Your task to perform on an android device: open chrome privacy settings Image 0: 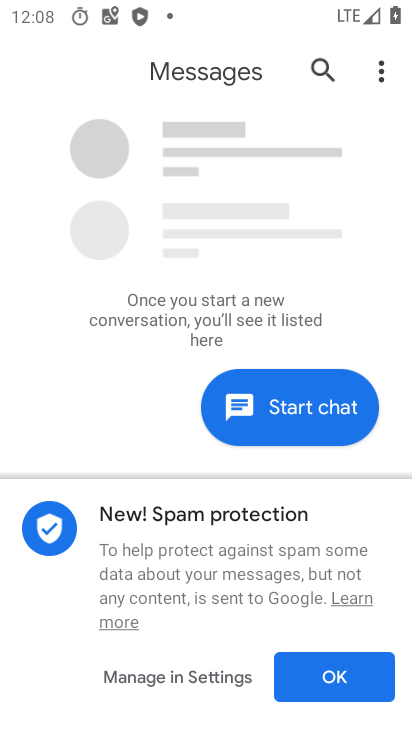
Step 0: press back button
Your task to perform on an android device: open chrome privacy settings Image 1: 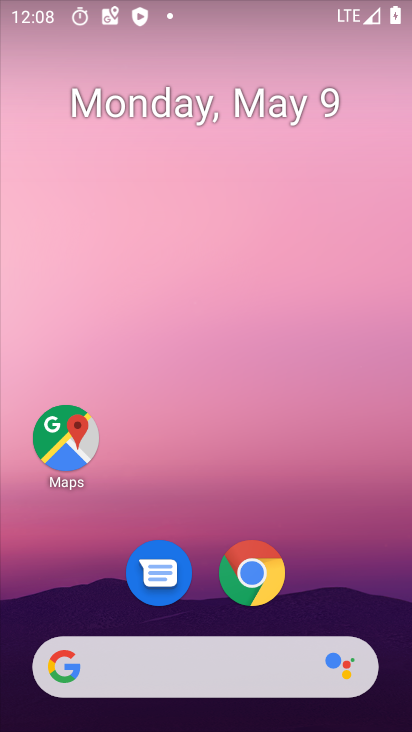
Step 1: drag from (329, 576) to (251, 41)
Your task to perform on an android device: open chrome privacy settings Image 2: 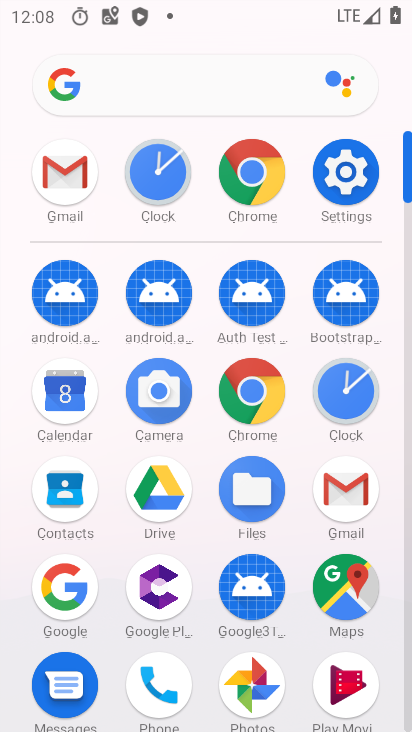
Step 2: drag from (12, 584) to (13, 230)
Your task to perform on an android device: open chrome privacy settings Image 3: 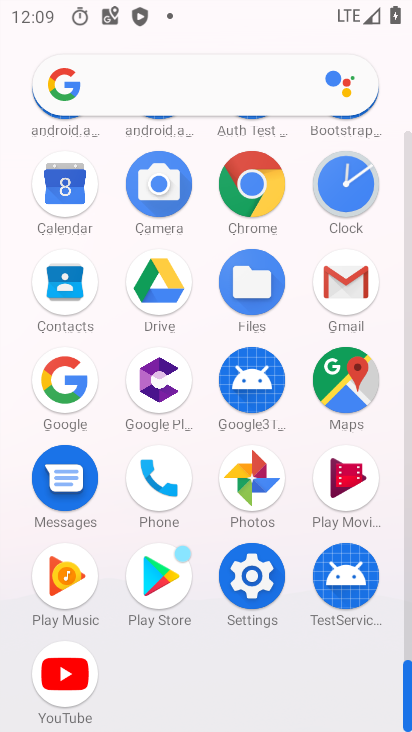
Step 3: click (249, 181)
Your task to perform on an android device: open chrome privacy settings Image 4: 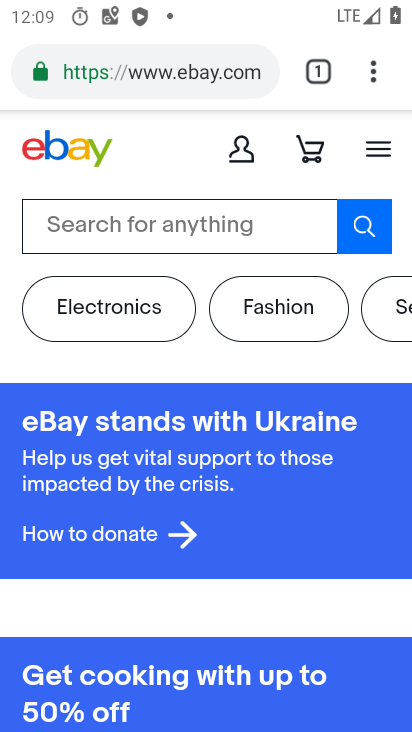
Step 4: drag from (372, 83) to (161, 567)
Your task to perform on an android device: open chrome privacy settings Image 5: 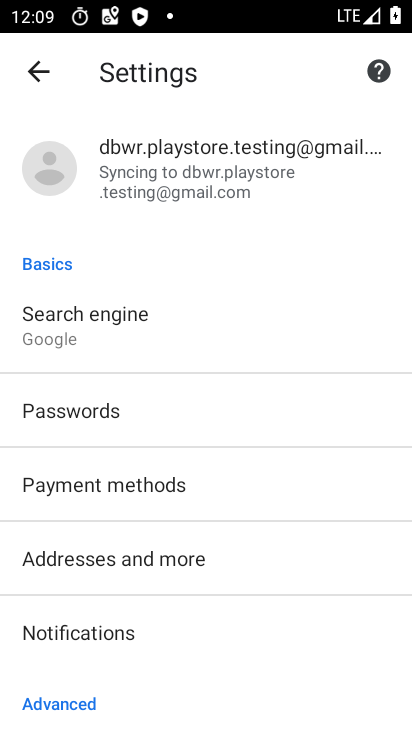
Step 5: drag from (215, 645) to (295, 206)
Your task to perform on an android device: open chrome privacy settings Image 6: 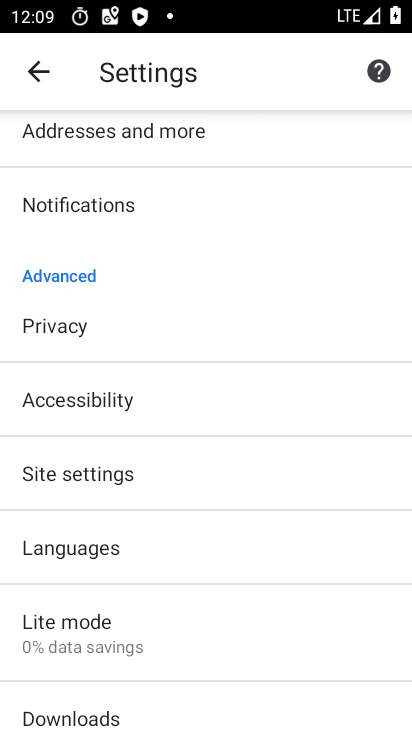
Step 6: click (92, 323)
Your task to perform on an android device: open chrome privacy settings Image 7: 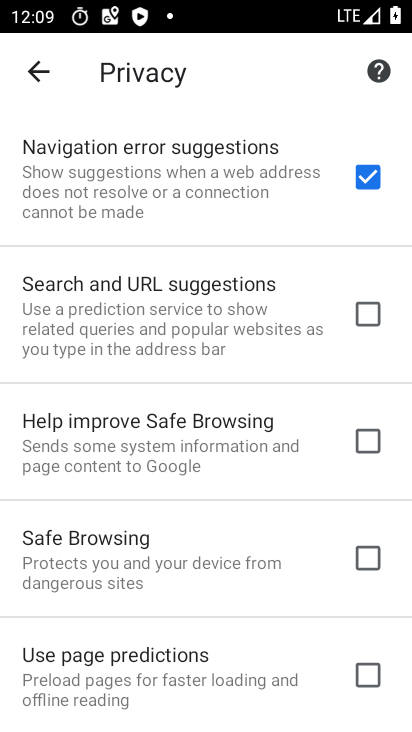
Step 7: task complete